Your task to perform on an android device: Go to battery settings Image 0: 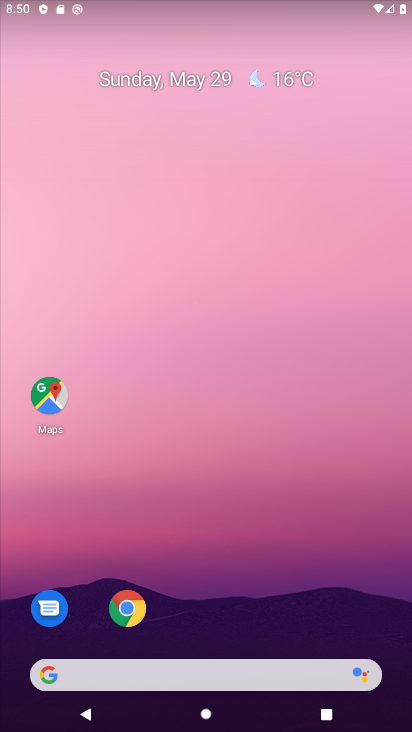
Step 0: drag from (225, 634) to (125, 117)
Your task to perform on an android device: Go to battery settings Image 1: 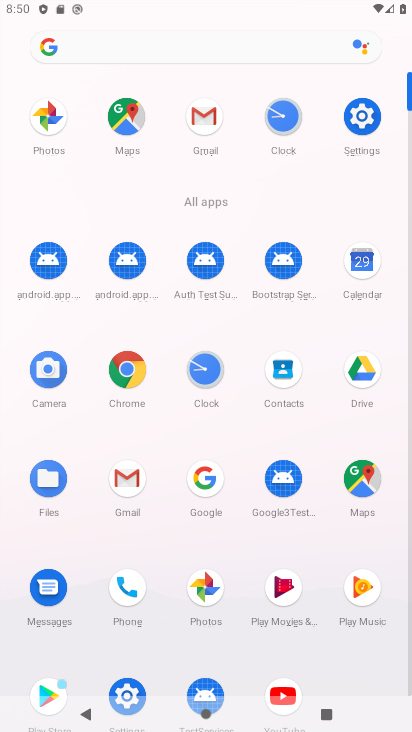
Step 1: click (364, 121)
Your task to perform on an android device: Go to battery settings Image 2: 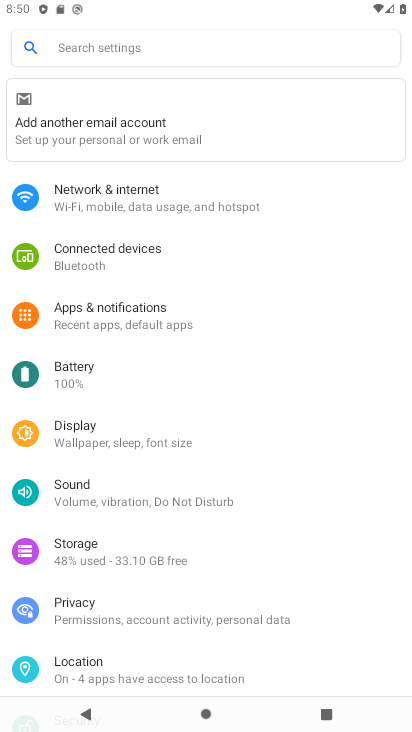
Step 2: click (100, 386)
Your task to perform on an android device: Go to battery settings Image 3: 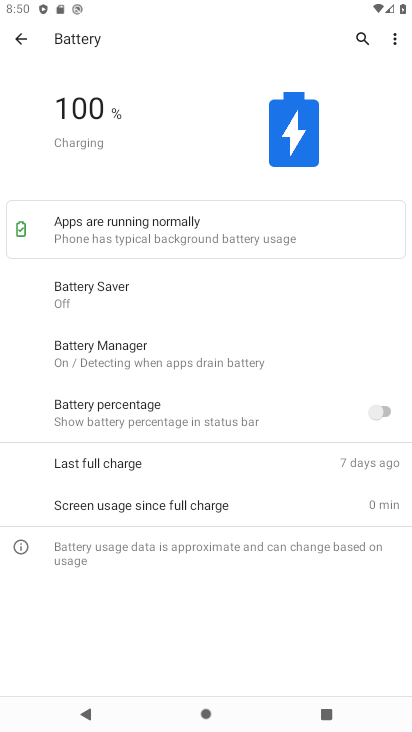
Step 3: task complete